Your task to perform on an android device: set the timer Image 0: 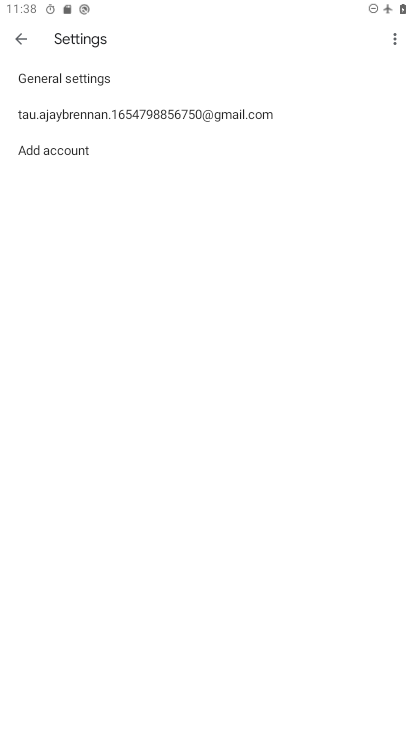
Step 0: press home button
Your task to perform on an android device: set the timer Image 1: 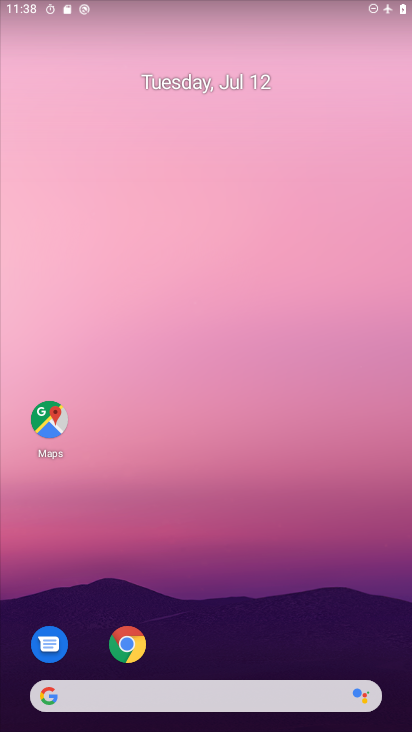
Step 1: drag from (231, 653) to (236, 146)
Your task to perform on an android device: set the timer Image 2: 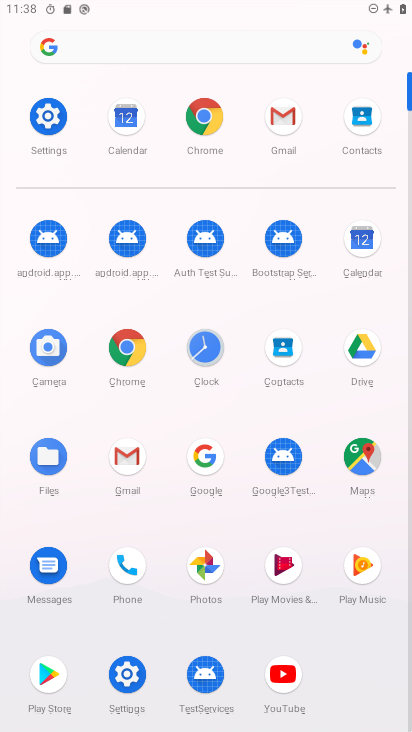
Step 2: click (215, 346)
Your task to perform on an android device: set the timer Image 3: 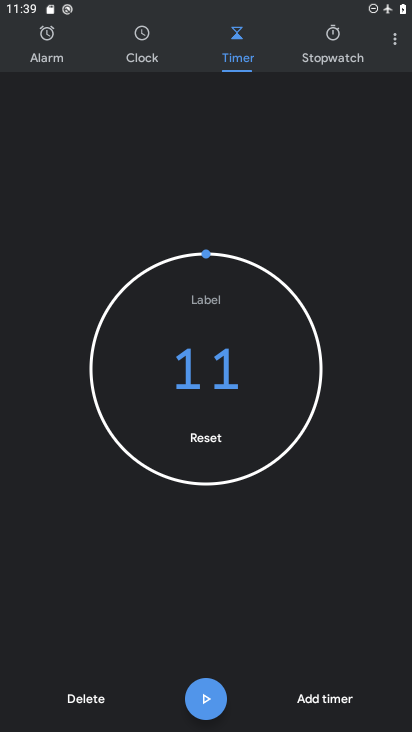
Step 3: click (203, 686)
Your task to perform on an android device: set the timer Image 4: 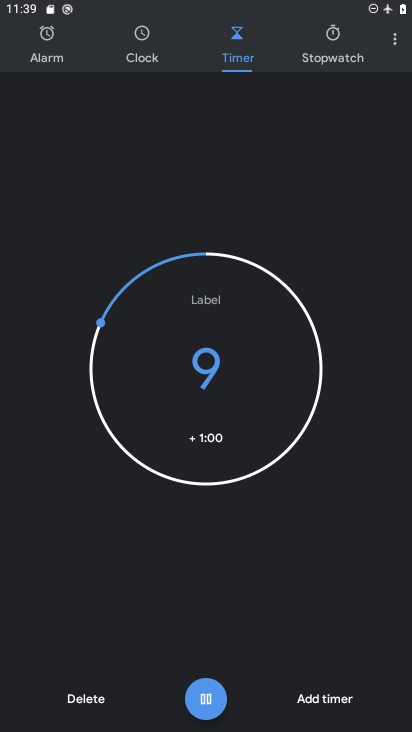
Step 4: task complete